Your task to perform on an android device: Go to location settings Image 0: 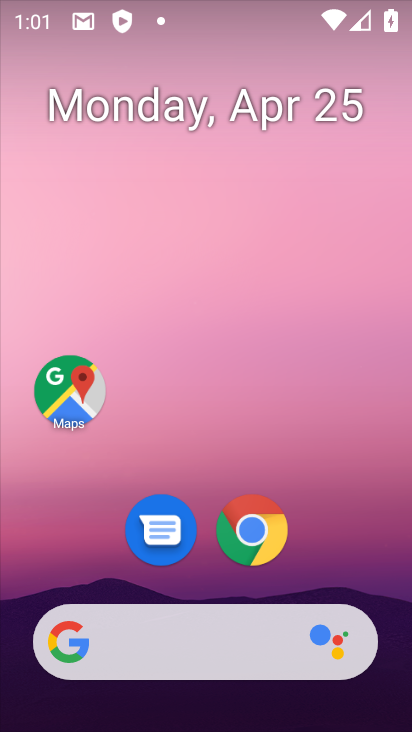
Step 0: drag from (356, 541) to (336, 107)
Your task to perform on an android device: Go to location settings Image 1: 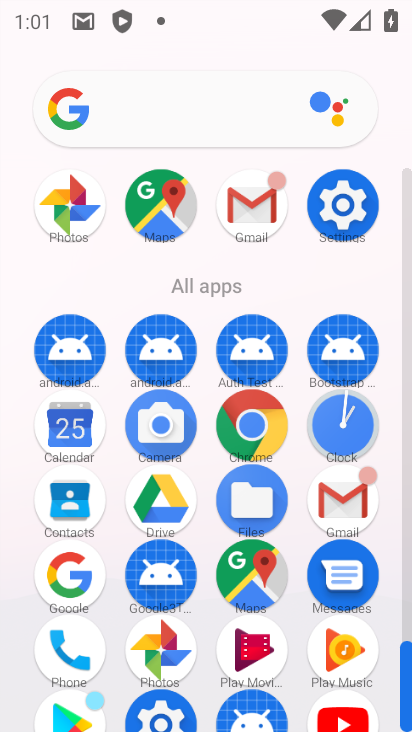
Step 1: click (356, 215)
Your task to perform on an android device: Go to location settings Image 2: 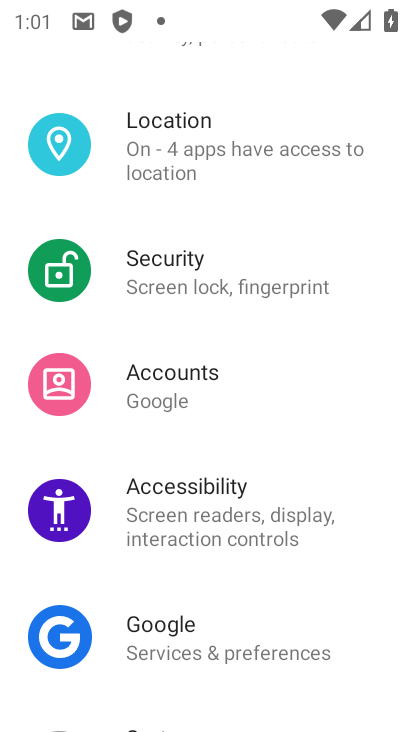
Step 2: click (208, 138)
Your task to perform on an android device: Go to location settings Image 3: 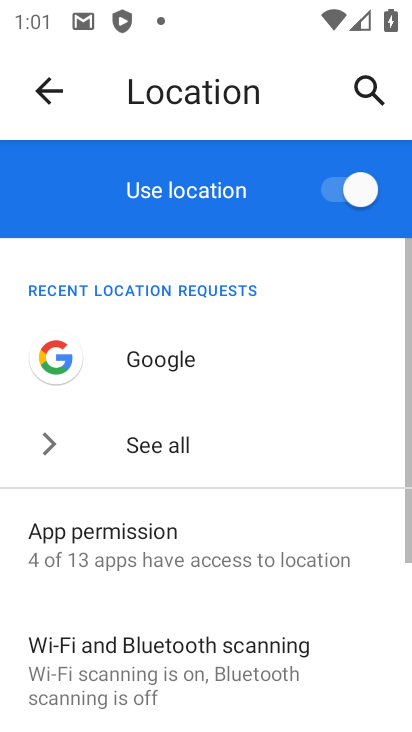
Step 3: task complete